Your task to perform on an android device: What's on my calendar tomorrow? Image 0: 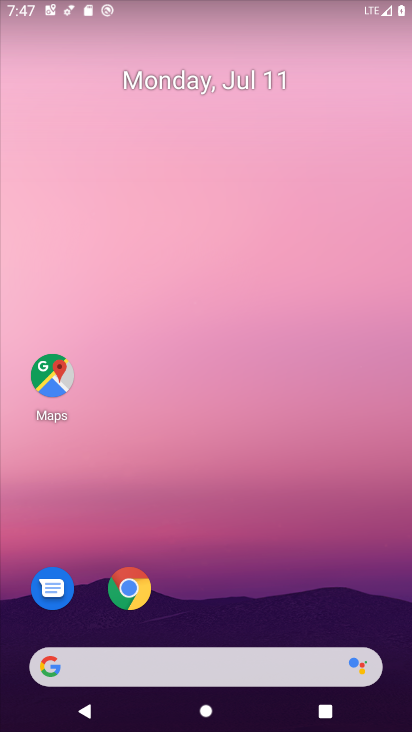
Step 0: drag from (388, 648) to (243, 0)
Your task to perform on an android device: What's on my calendar tomorrow? Image 1: 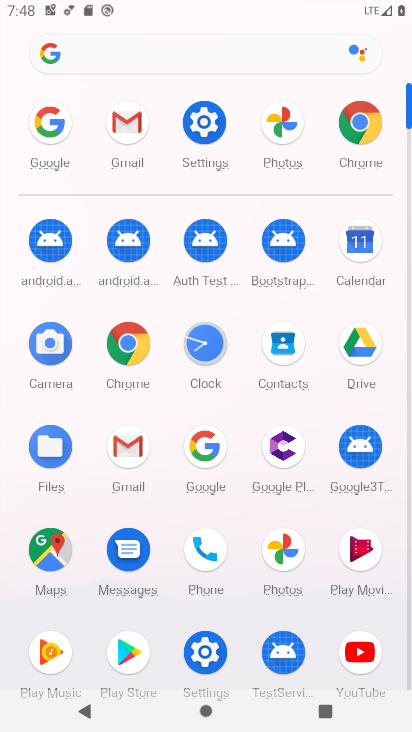
Step 1: click (362, 247)
Your task to perform on an android device: What's on my calendar tomorrow? Image 2: 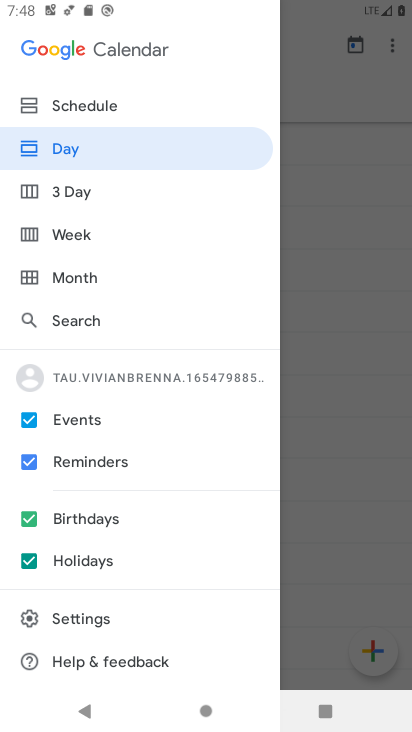
Step 2: task complete